Your task to perform on an android device: install app "Microsoft Authenticator" Image 0: 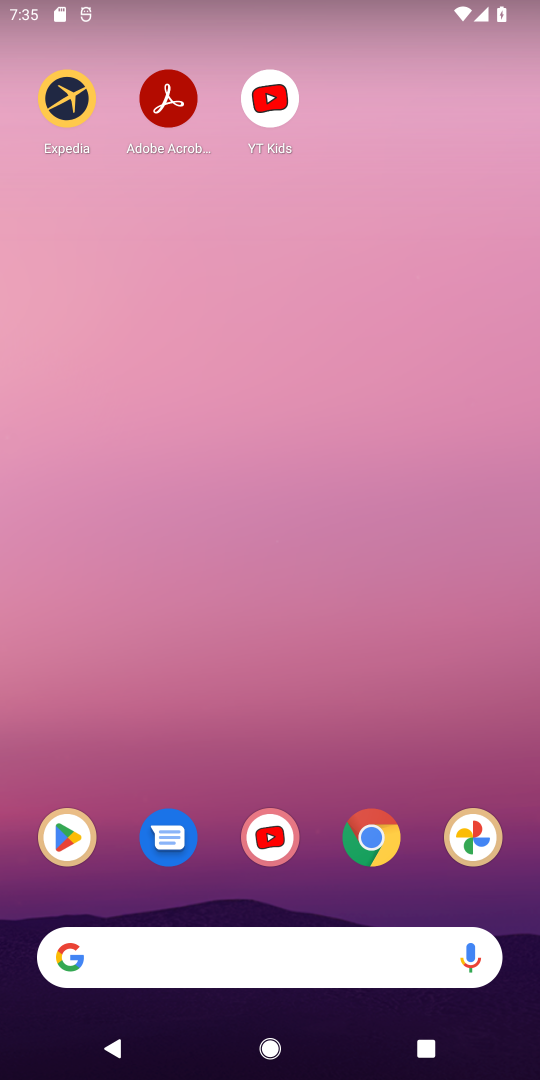
Step 0: click (78, 843)
Your task to perform on an android device: install app "Microsoft Authenticator" Image 1: 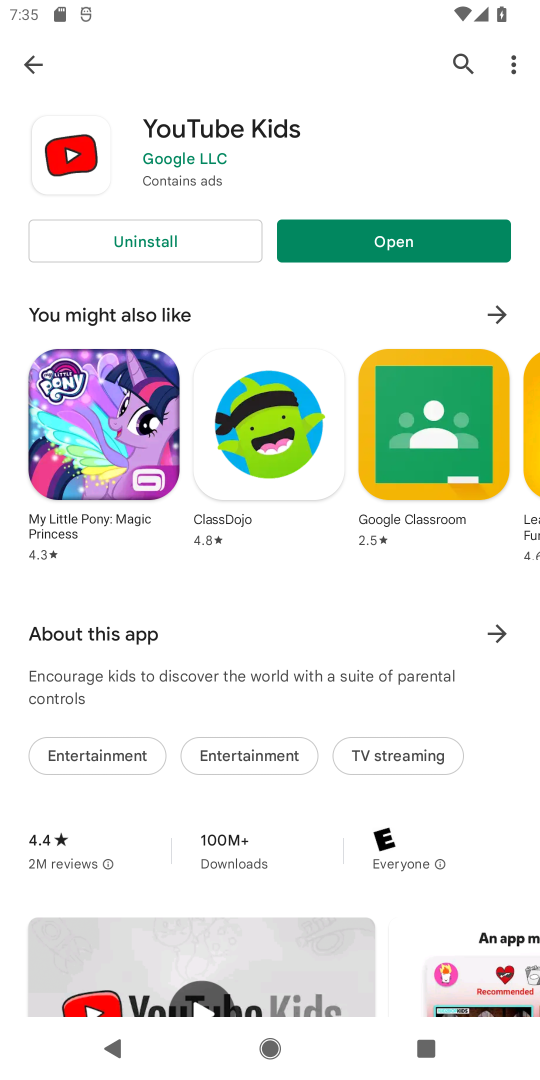
Step 1: click (470, 55)
Your task to perform on an android device: install app "Microsoft Authenticator" Image 2: 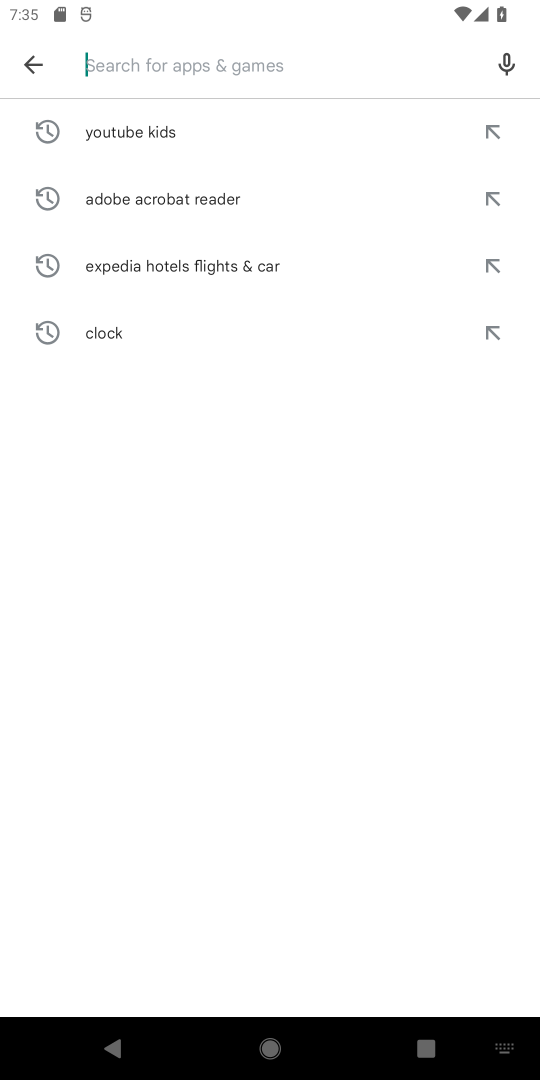
Step 2: type "Microsoft Authenticator"
Your task to perform on an android device: install app "Microsoft Authenticator" Image 3: 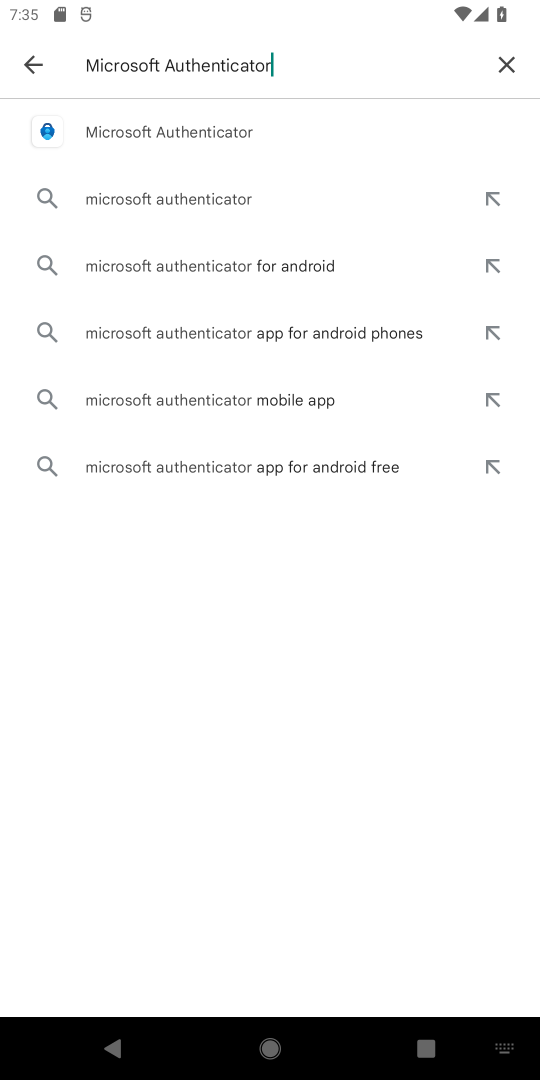
Step 3: click (144, 130)
Your task to perform on an android device: install app "Microsoft Authenticator" Image 4: 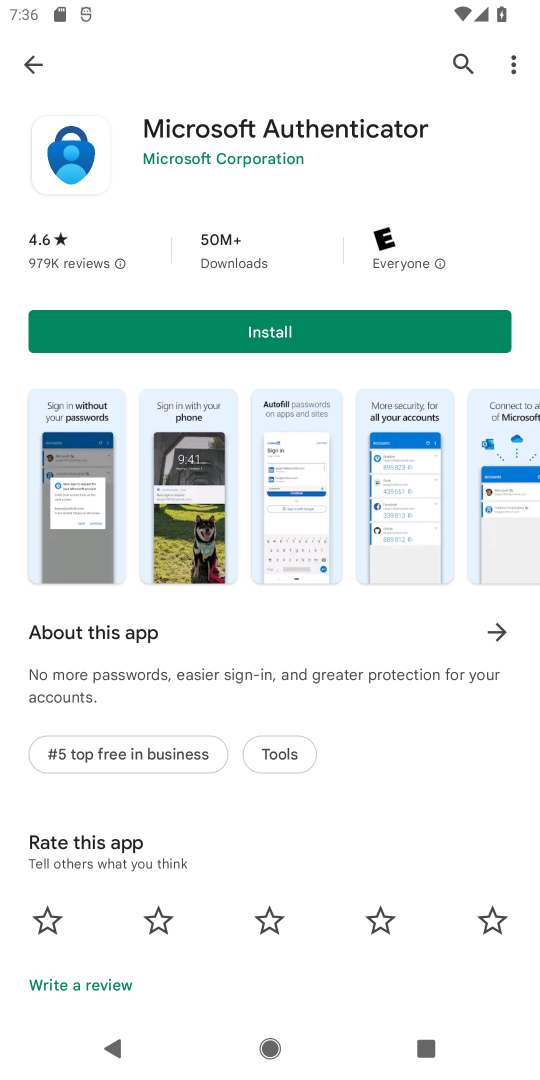
Step 4: click (194, 328)
Your task to perform on an android device: install app "Microsoft Authenticator" Image 5: 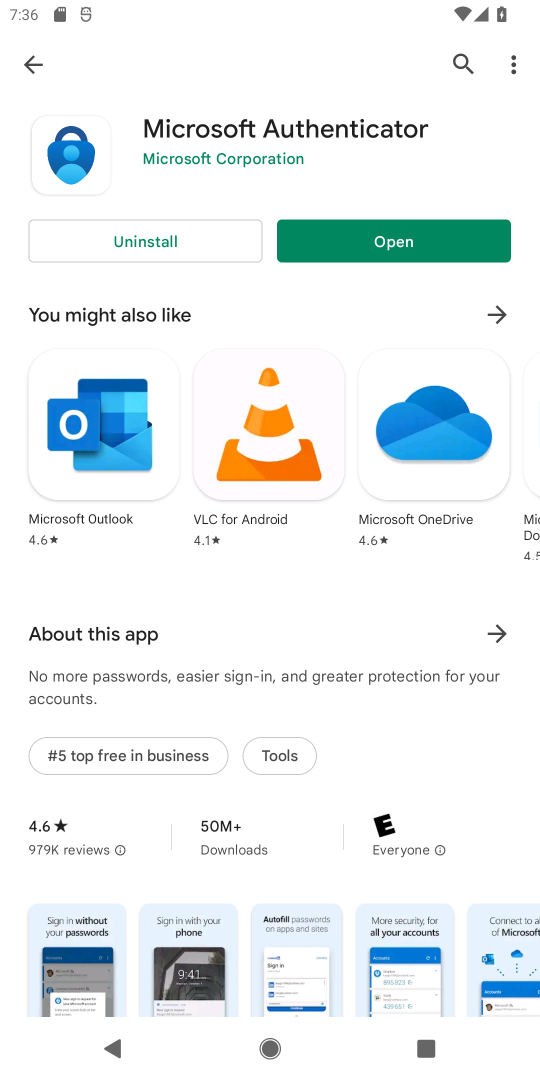
Step 5: task complete